Your task to perform on an android device: Open Google Chrome and open the bookmarks view Image 0: 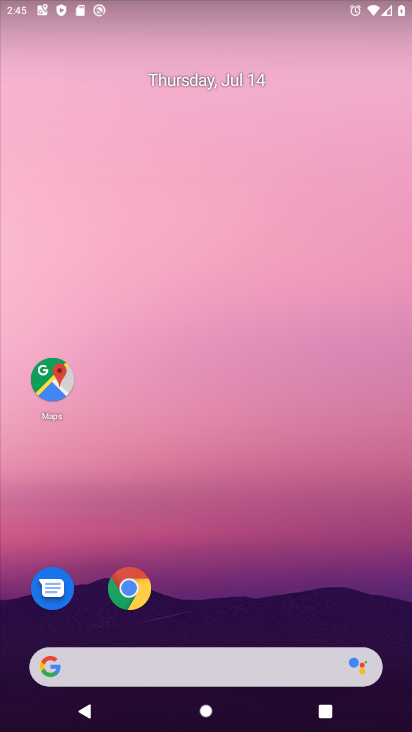
Step 0: drag from (211, 592) to (206, 278)
Your task to perform on an android device: Open Google Chrome and open the bookmarks view Image 1: 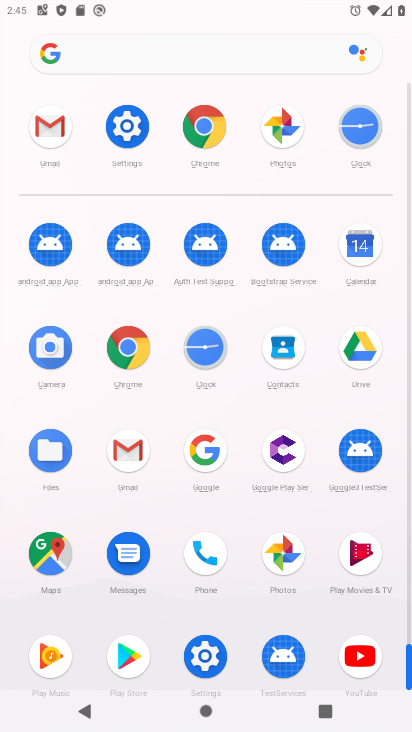
Step 1: click (131, 124)
Your task to perform on an android device: Open Google Chrome and open the bookmarks view Image 2: 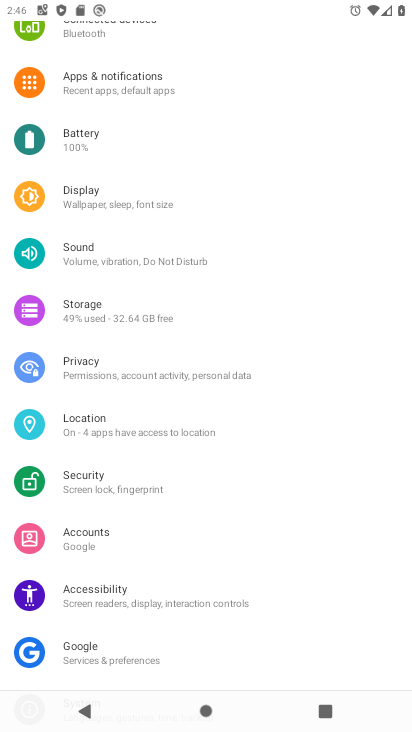
Step 2: press home button
Your task to perform on an android device: Open Google Chrome and open the bookmarks view Image 3: 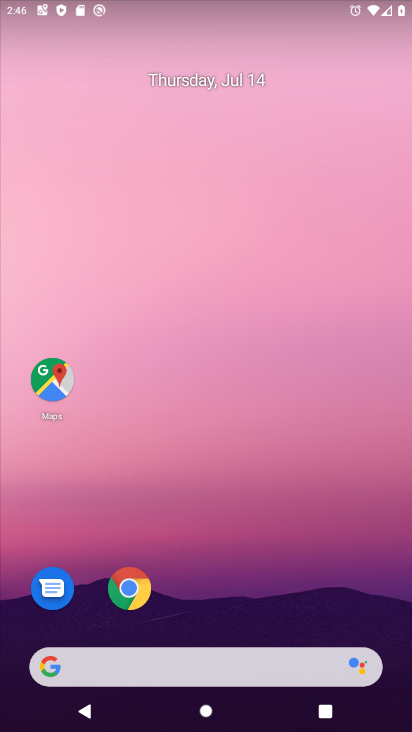
Step 3: drag from (277, 596) to (249, 287)
Your task to perform on an android device: Open Google Chrome and open the bookmarks view Image 4: 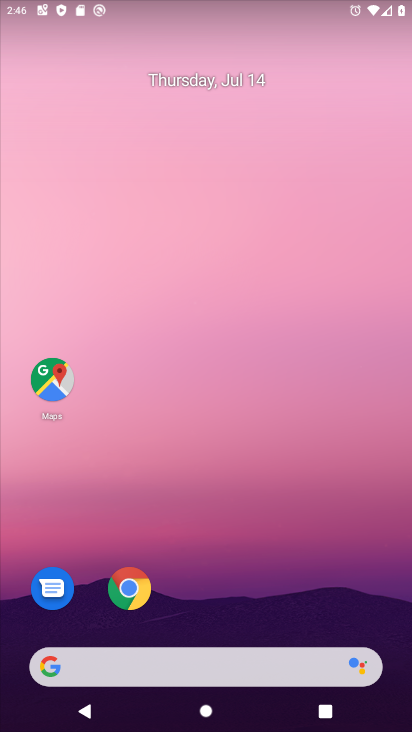
Step 4: drag from (202, 620) to (206, 300)
Your task to perform on an android device: Open Google Chrome and open the bookmarks view Image 5: 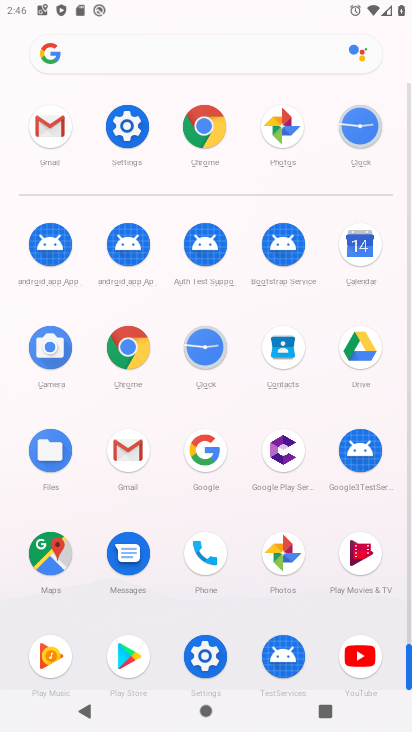
Step 5: click (197, 117)
Your task to perform on an android device: Open Google Chrome and open the bookmarks view Image 6: 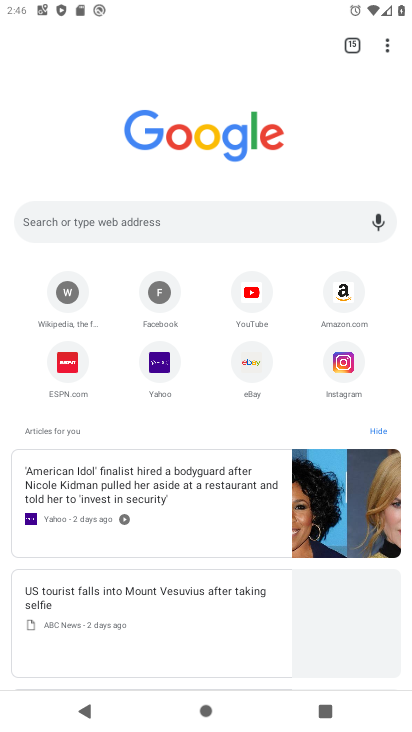
Step 6: click (390, 42)
Your task to perform on an android device: Open Google Chrome and open the bookmarks view Image 7: 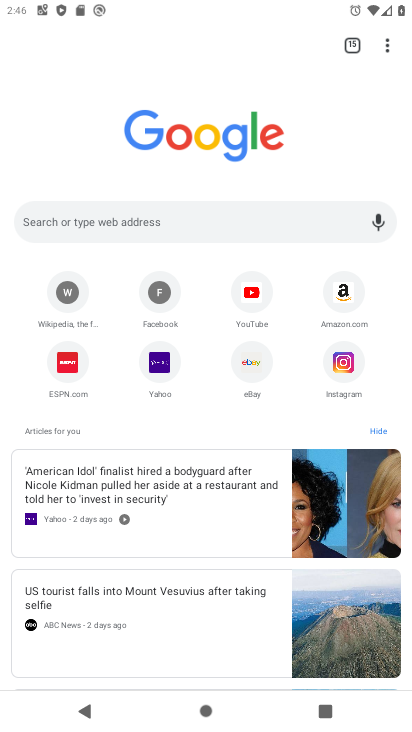
Step 7: click (390, 42)
Your task to perform on an android device: Open Google Chrome and open the bookmarks view Image 8: 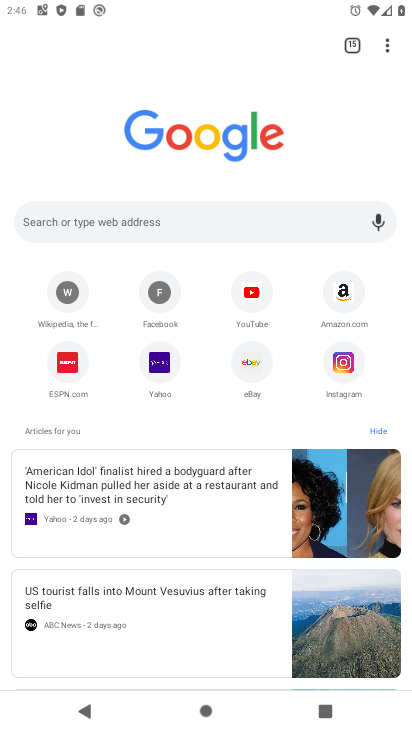
Step 8: click (390, 42)
Your task to perform on an android device: Open Google Chrome and open the bookmarks view Image 9: 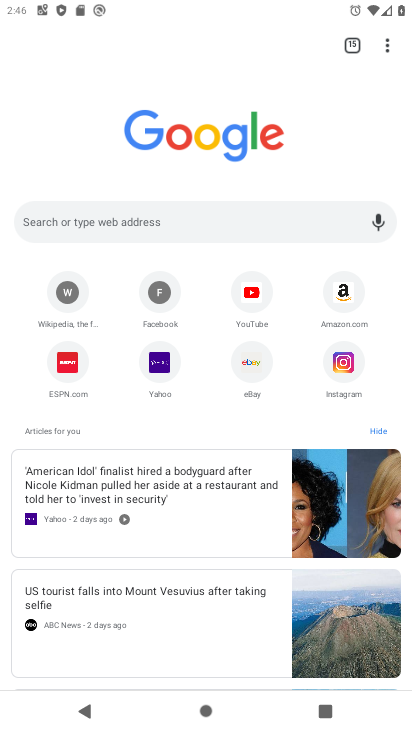
Step 9: click (390, 42)
Your task to perform on an android device: Open Google Chrome and open the bookmarks view Image 10: 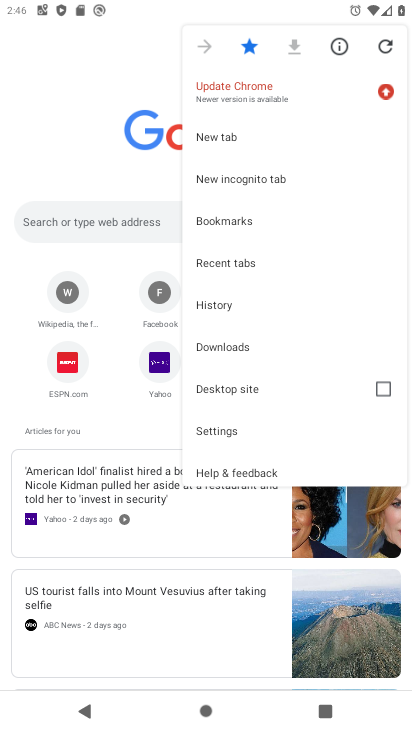
Step 10: click (243, 223)
Your task to perform on an android device: Open Google Chrome and open the bookmarks view Image 11: 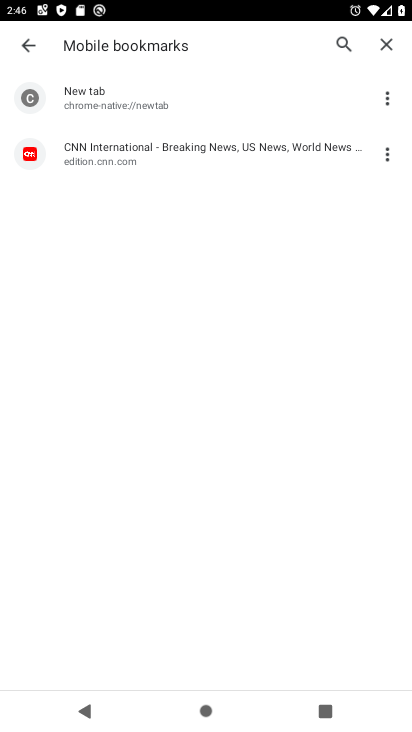
Step 11: task complete